Your task to perform on an android device: Open settings Image 0: 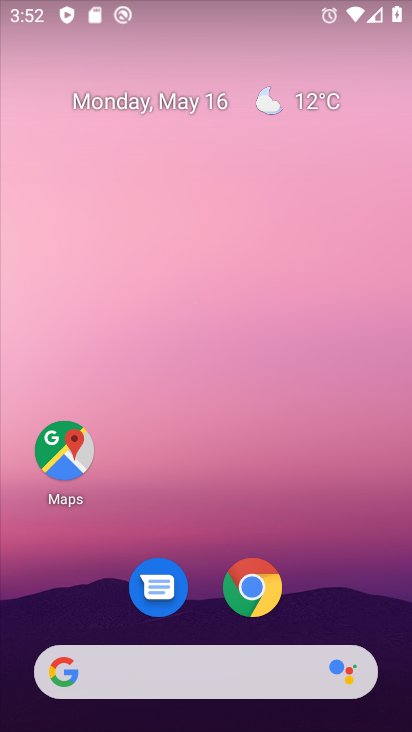
Step 0: drag from (388, 392) to (379, 241)
Your task to perform on an android device: Open settings Image 1: 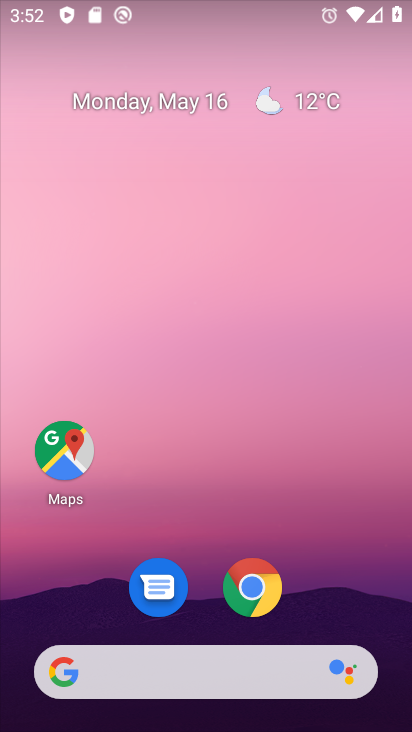
Step 1: drag from (395, 654) to (374, 267)
Your task to perform on an android device: Open settings Image 2: 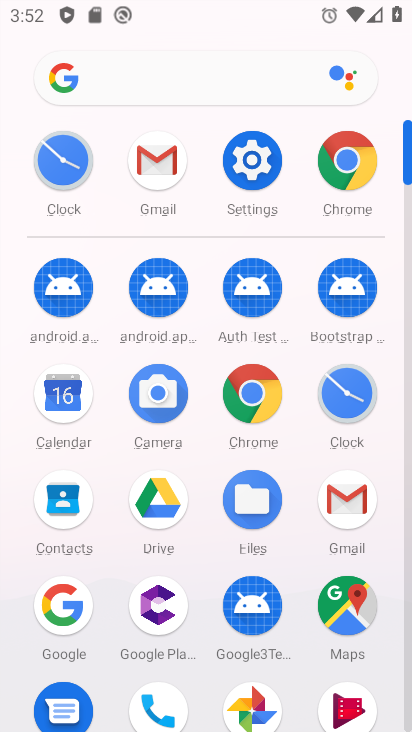
Step 2: click (251, 161)
Your task to perform on an android device: Open settings Image 3: 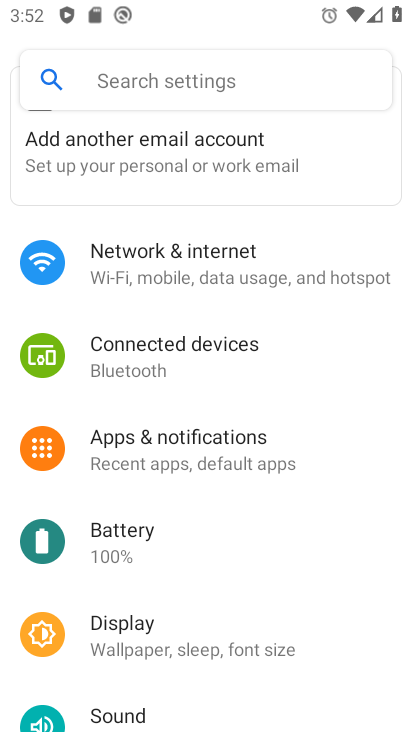
Step 3: task complete